Your task to perform on an android device: Open Google Image 0: 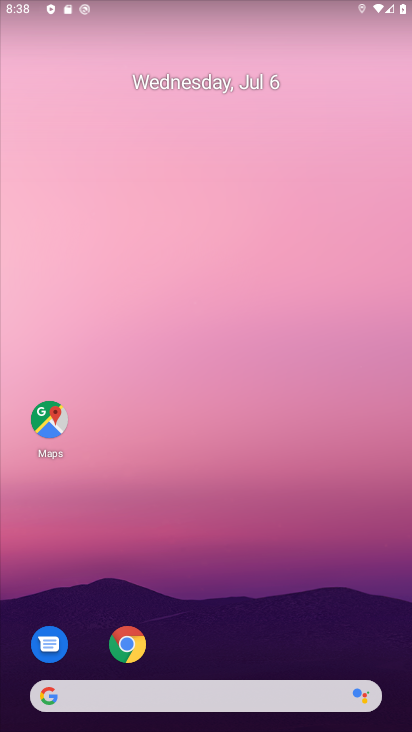
Step 0: click (226, 688)
Your task to perform on an android device: Open Google Image 1: 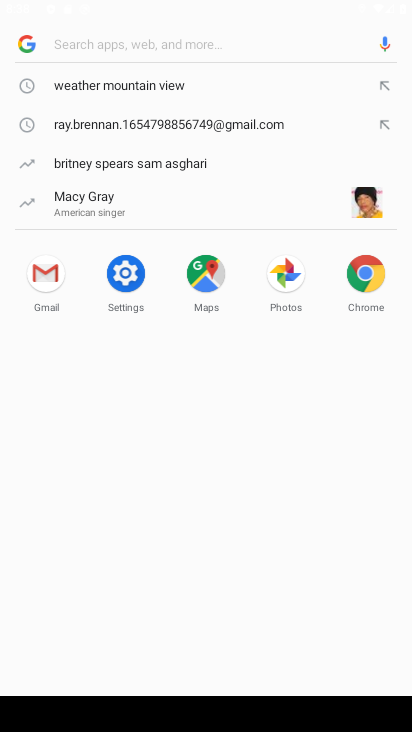
Step 1: task complete